Your task to perform on an android device: stop showing notifications on the lock screen Image 0: 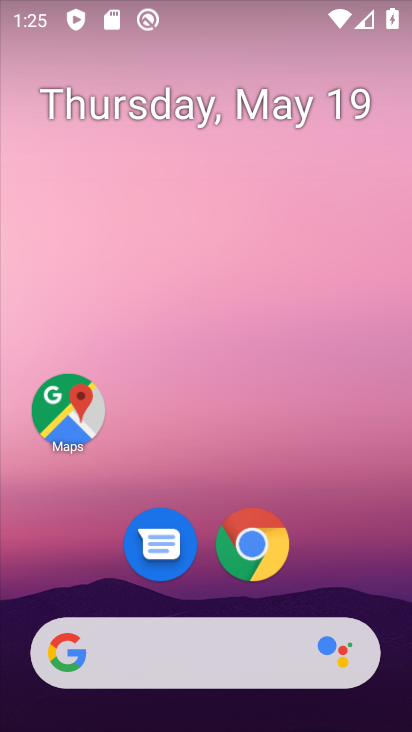
Step 0: drag from (306, 691) to (322, 213)
Your task to perform on an android device: stop showing notifications on the lock screen Image 1: 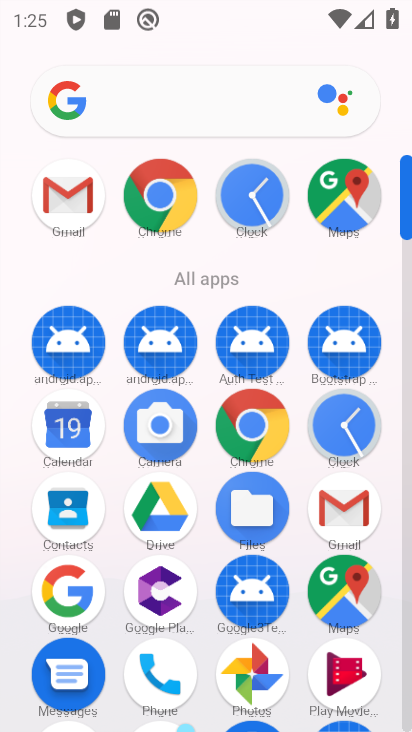
Step 1: drag from (203, 531) to (209, 375)
Your task to perform on an android device: stop showing notifications on the lock screen Image 2: 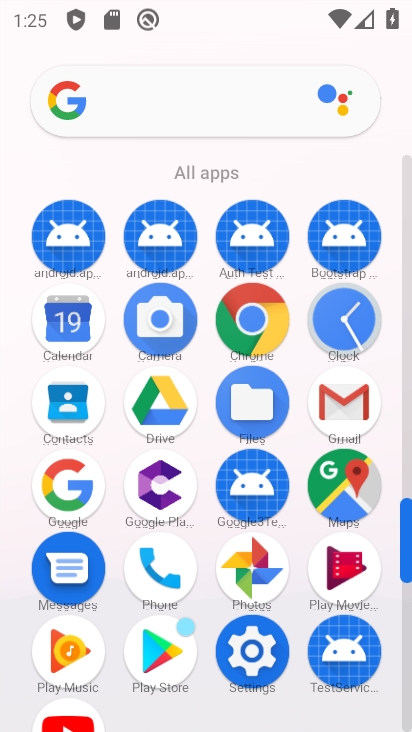
Step 2: click (253, 650)
Your task to perform on an android device: stop showing notifications on the lock screen Image 3: 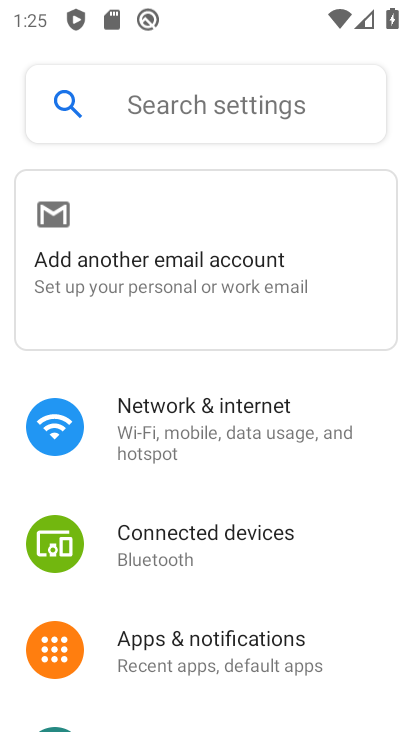
Step 3: click (210, 114)
Your task to perform on an android device: stop showing notifications on the lock screen Image 4: 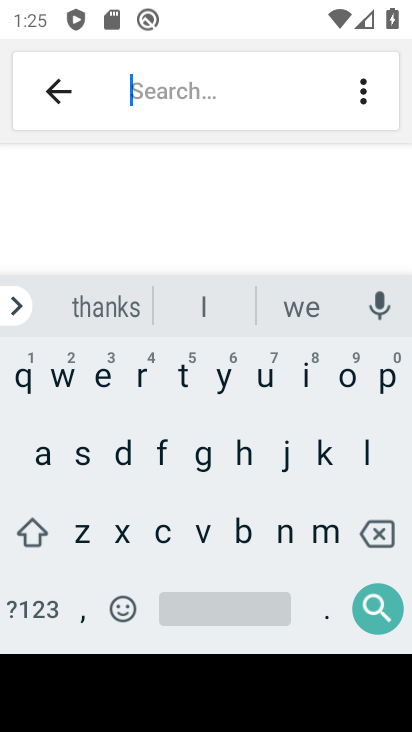
Step 4: click (284, 533)
Your task to perform on an android device: stop showing notifications on the lock screen Image 5: 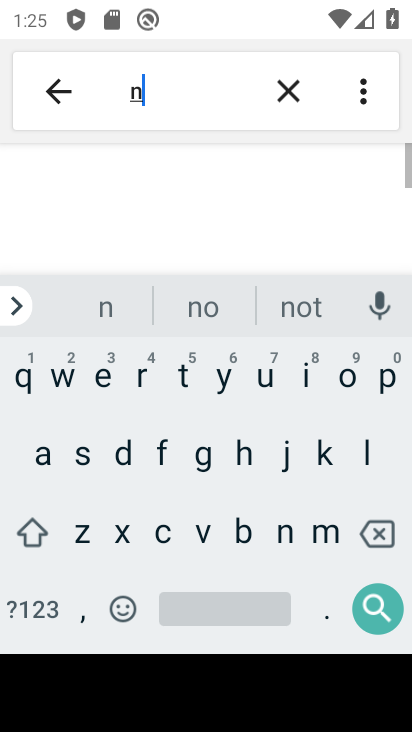
Step 5: click (340, 371)
Your task to perform on an android device: stop showing notifications on the lock screen Image 6: 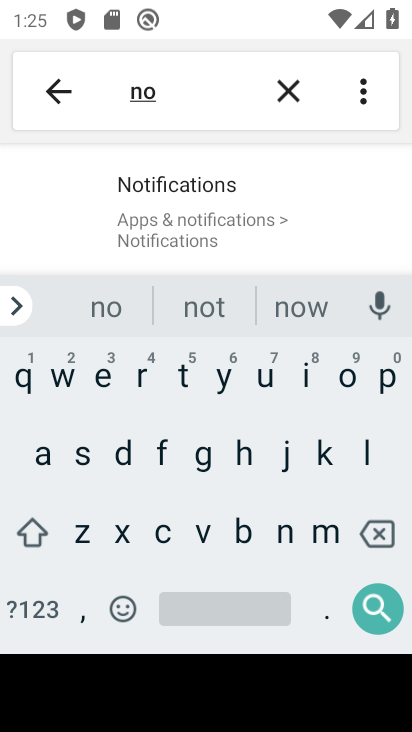
Step 6: click (190, 208)
Your task to perform on an android device: stop showing notifications on the lock screen Image 7: 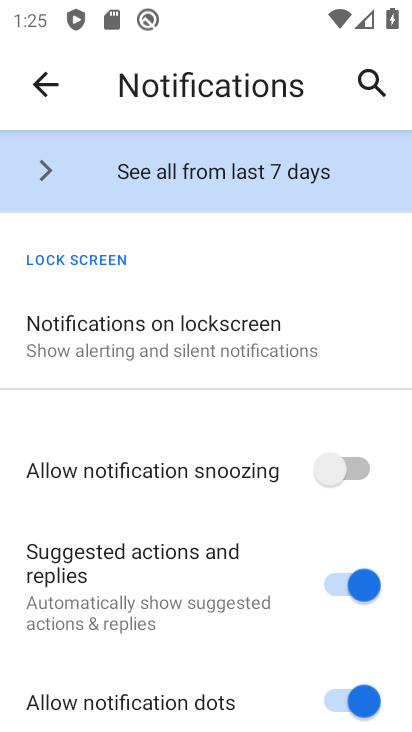
Step 7: click (133, 324)
Your task to perform on an android device: stop showing notifications on the lock screen Image 8: 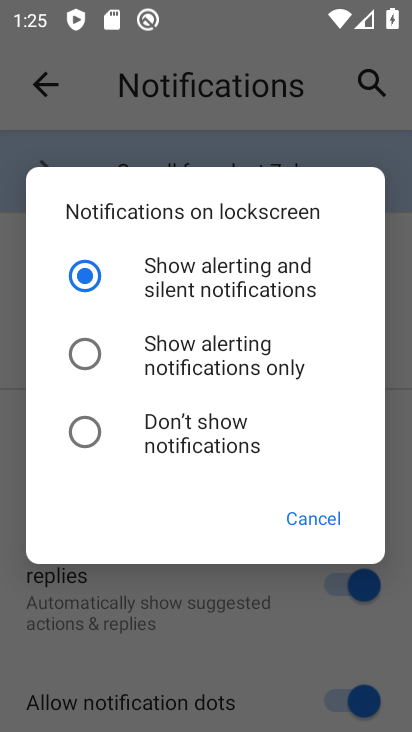
Step 8: click (165, 425)
Your task to perform on an android device: stop showing notifications on the lock screen Image 9: 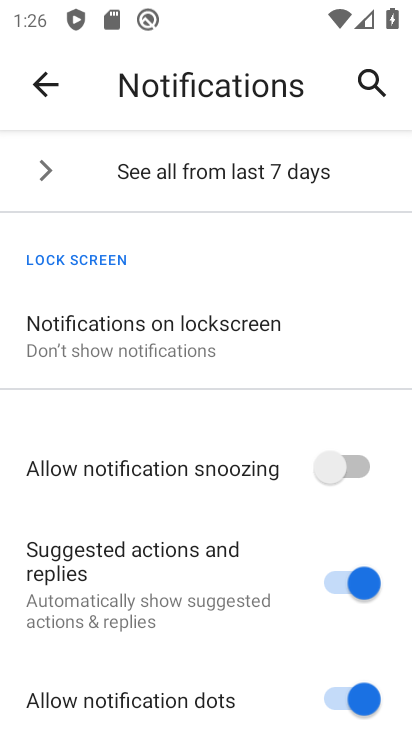
Step 9: task complete